Your task to perform on an android device: open the mobile data screen to see how much data has been used Image 0: 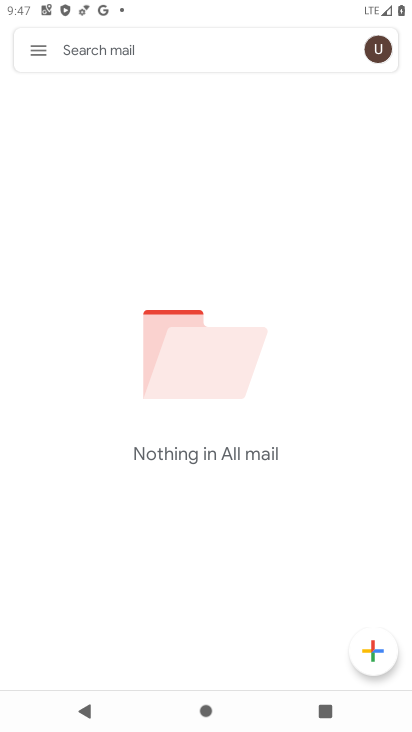
Step 0: press home button
Your task to perform on an android device: open the mobile data screen to see how much data has been used Image 1: 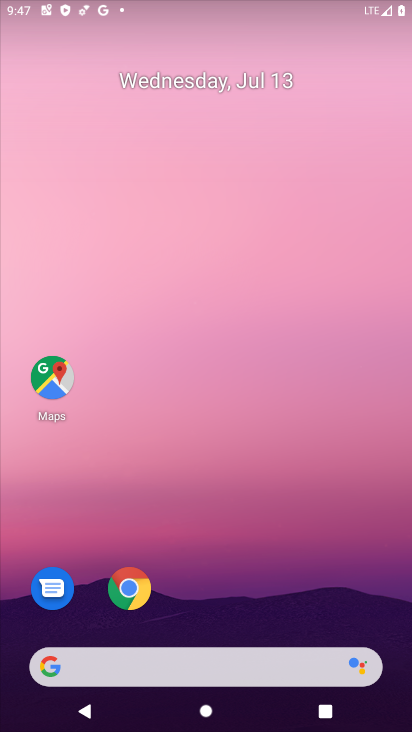
Step 1: drag from (262, 603) to (278, 86)
Your task to perform on an android device: open the mobile data screen to see how much data has been used Image 2: 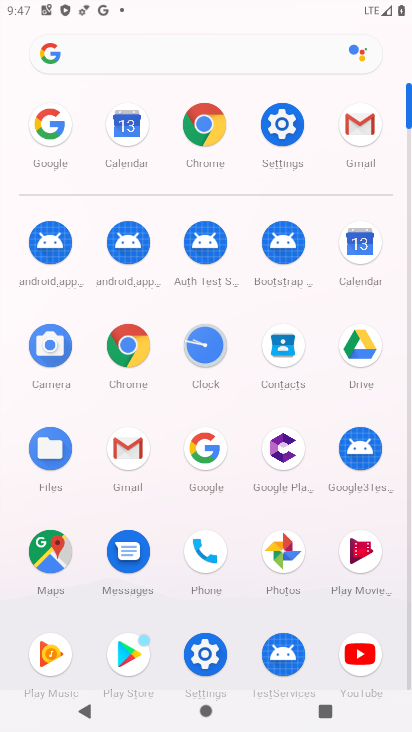
Step 2: click (213, 652)
Your task to perform on an android device: open the mobile data screen to see how much data has been used Image 3: 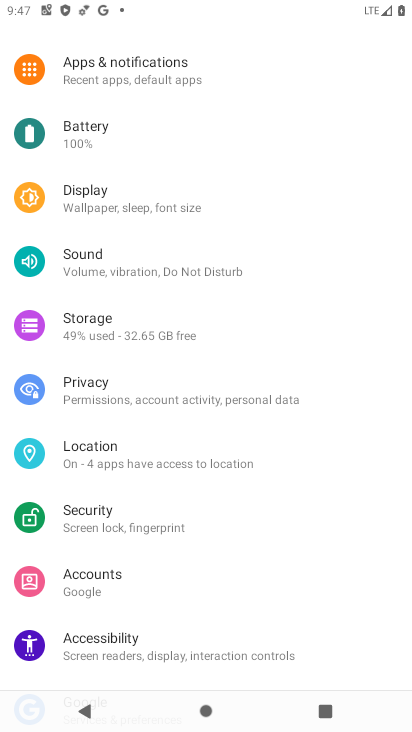
Step 3: drag from (136, 64) to (224, 582)
Your task to perform on an android device: open the mobile data screen to see how much data has been used Image 4: 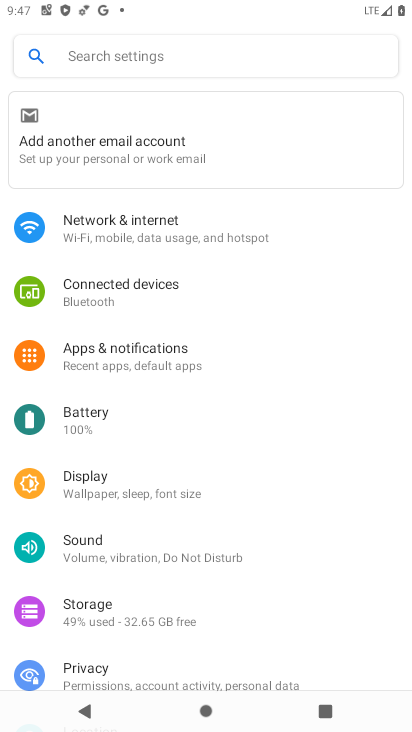
Step 4: click (127, 225)
Your task to perform on an android device: open the mobile data screen to see how much data has been used Image 5: 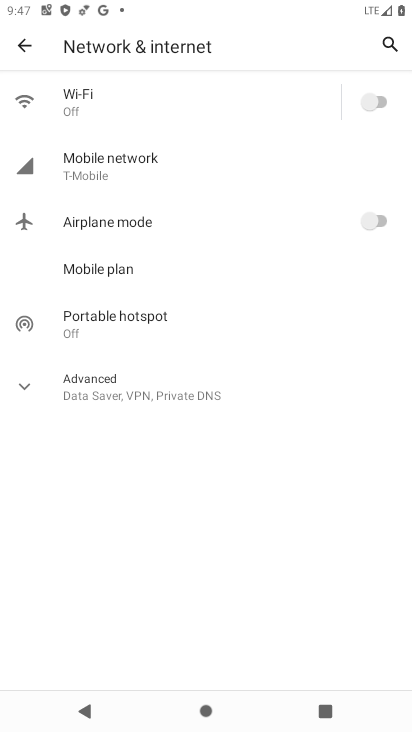
Step 5: click (162, 154)
Your task to perform on an android device: open the mobile data screen to see how much data has been used Image 6: 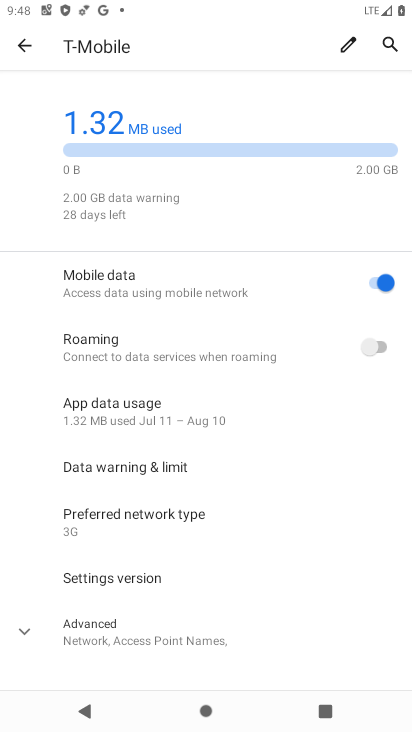
Step 6: task complete